Your task to perform on an android device: Do I have any events this weekend? Image 0: 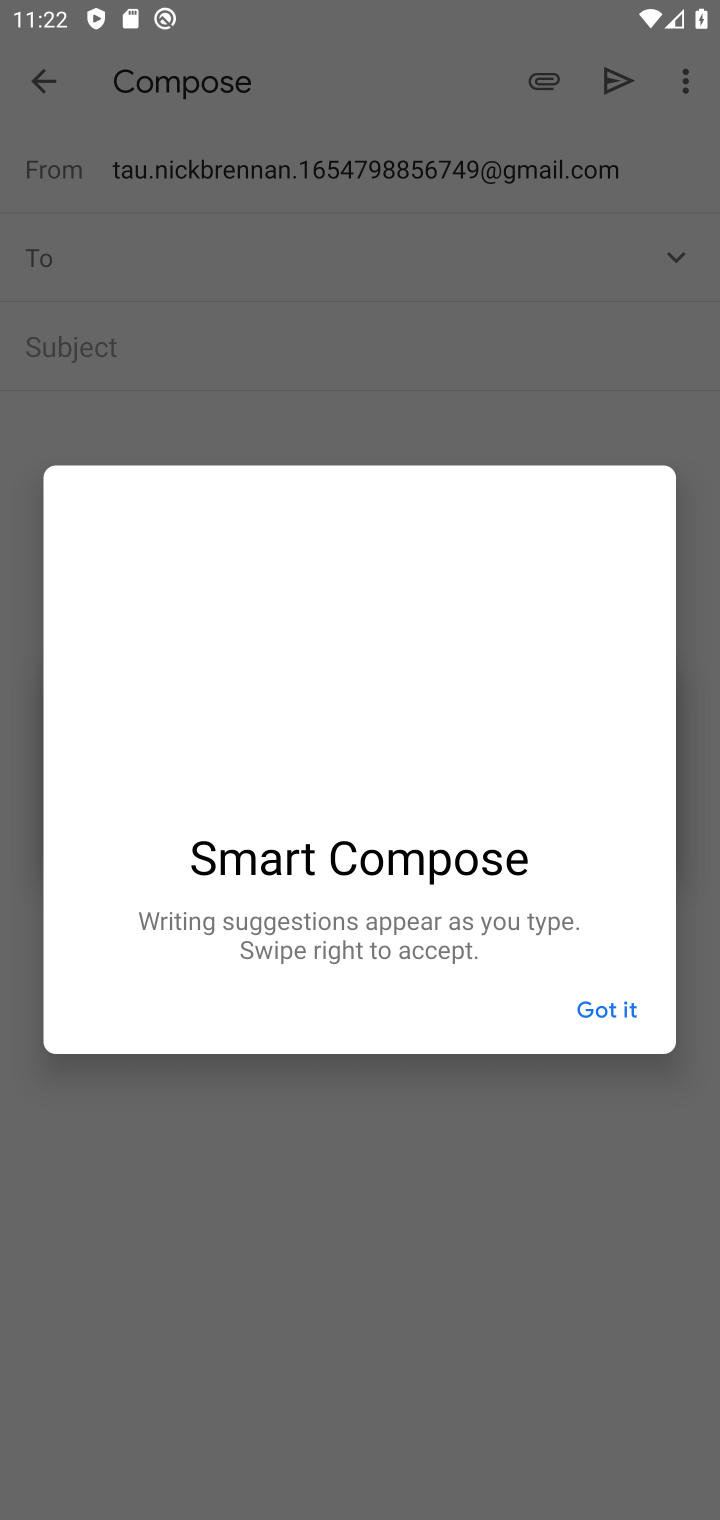
Step 0: press home button
Your task to perform on an android device: Do I have any events this weekend? Image 1: 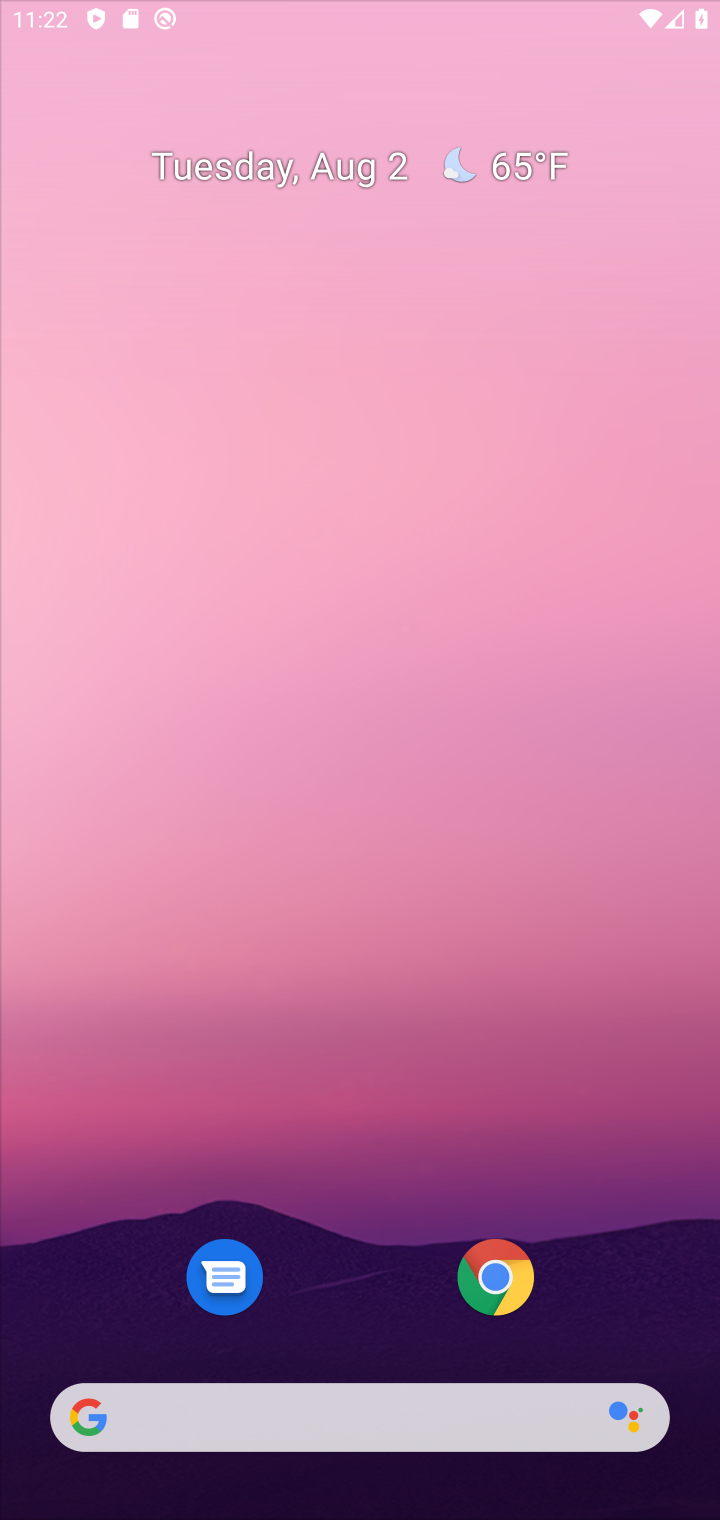
Step 1: press back button
Your task to perform on an android device: Do I have any events this weekend? Image 2: 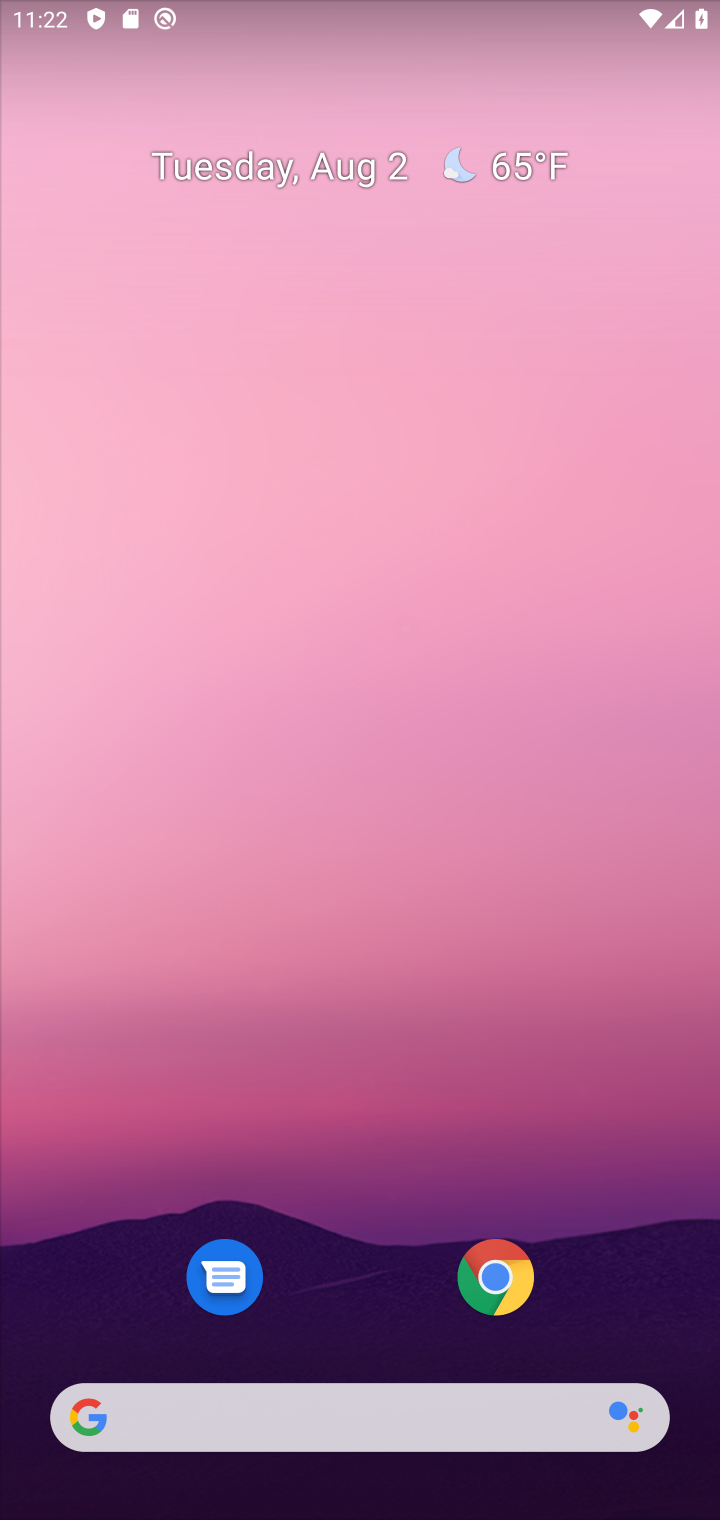
Step 2: drag from (544, 658) to (460, 304)
Your task to perform on an android device: Do I have any events this weekend? Image 3: 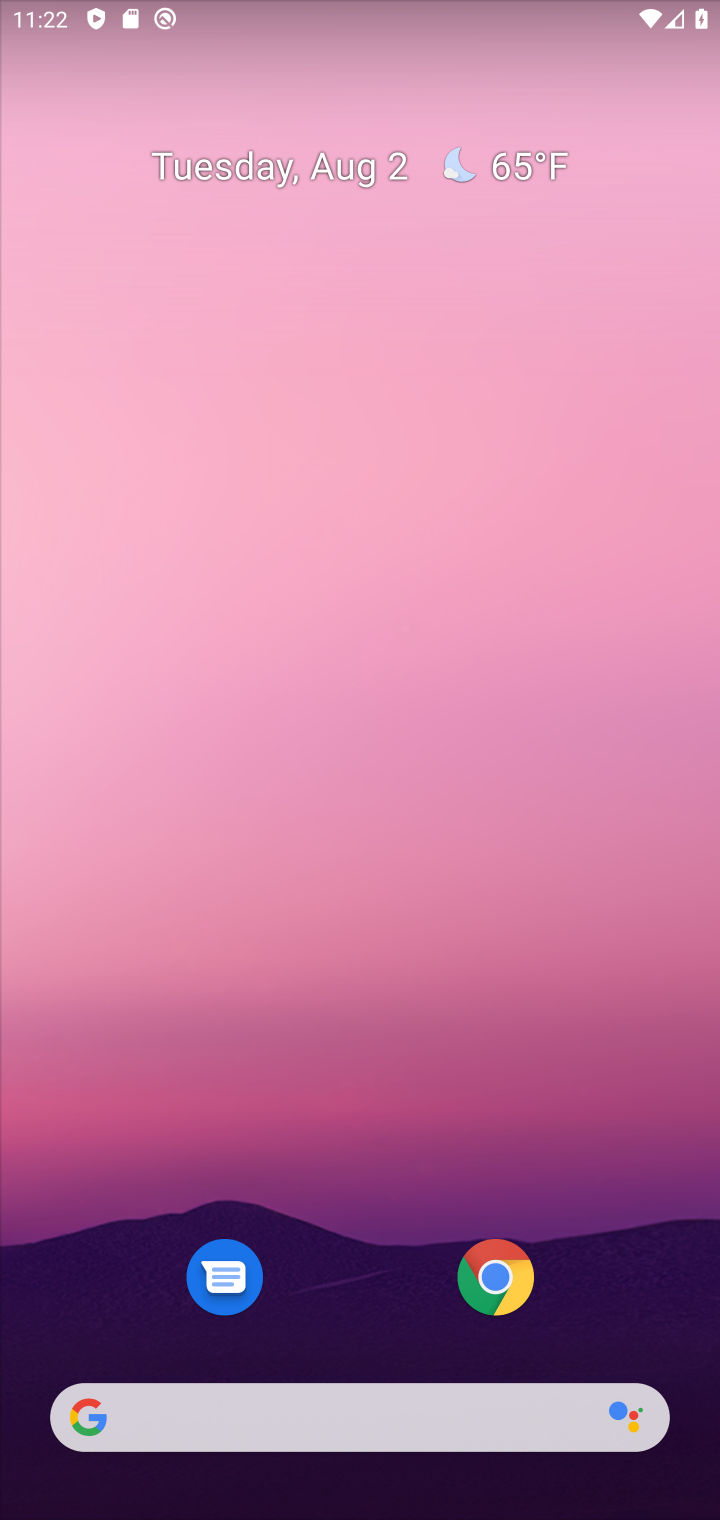
Step 3: drag from (583, 957) to (407, 246)
Your task to perform on an android device: Do I have any events this weekend? Image 4: 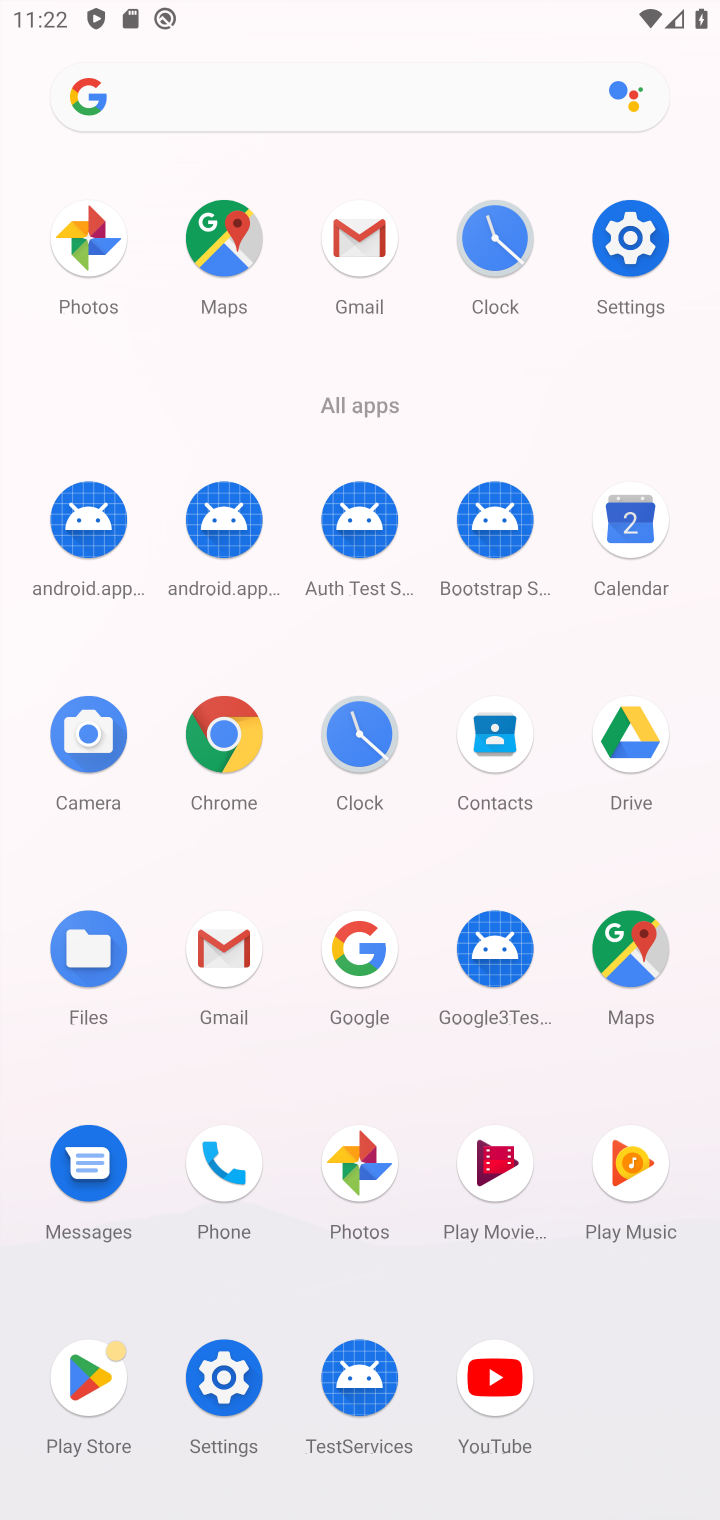
Step 4: click (634, 533)
Your task to perform on an android device: Do I have any events this weekend? Image 5: 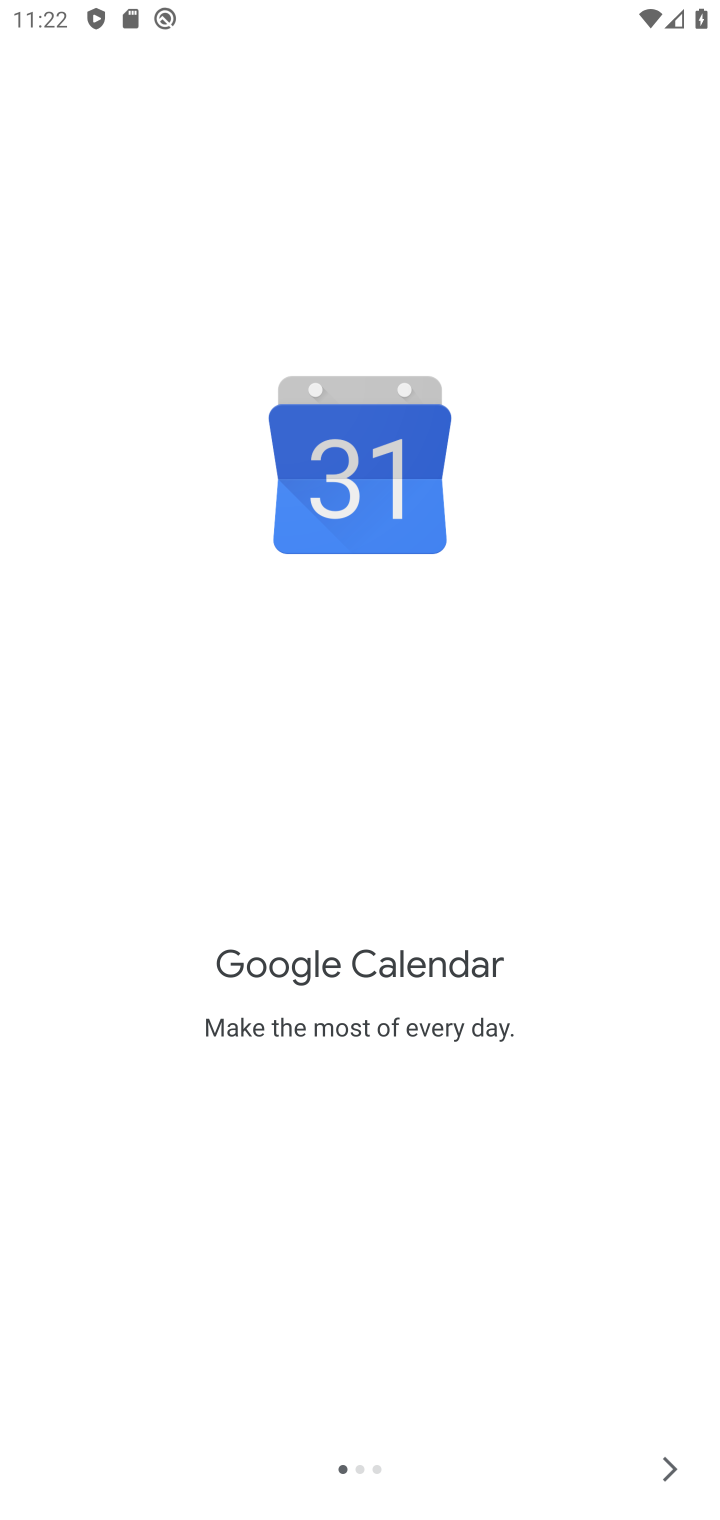
Step 5: click (689, 1494)
Your task to perform on an android device: Do I have any events this weekend? Image 6: 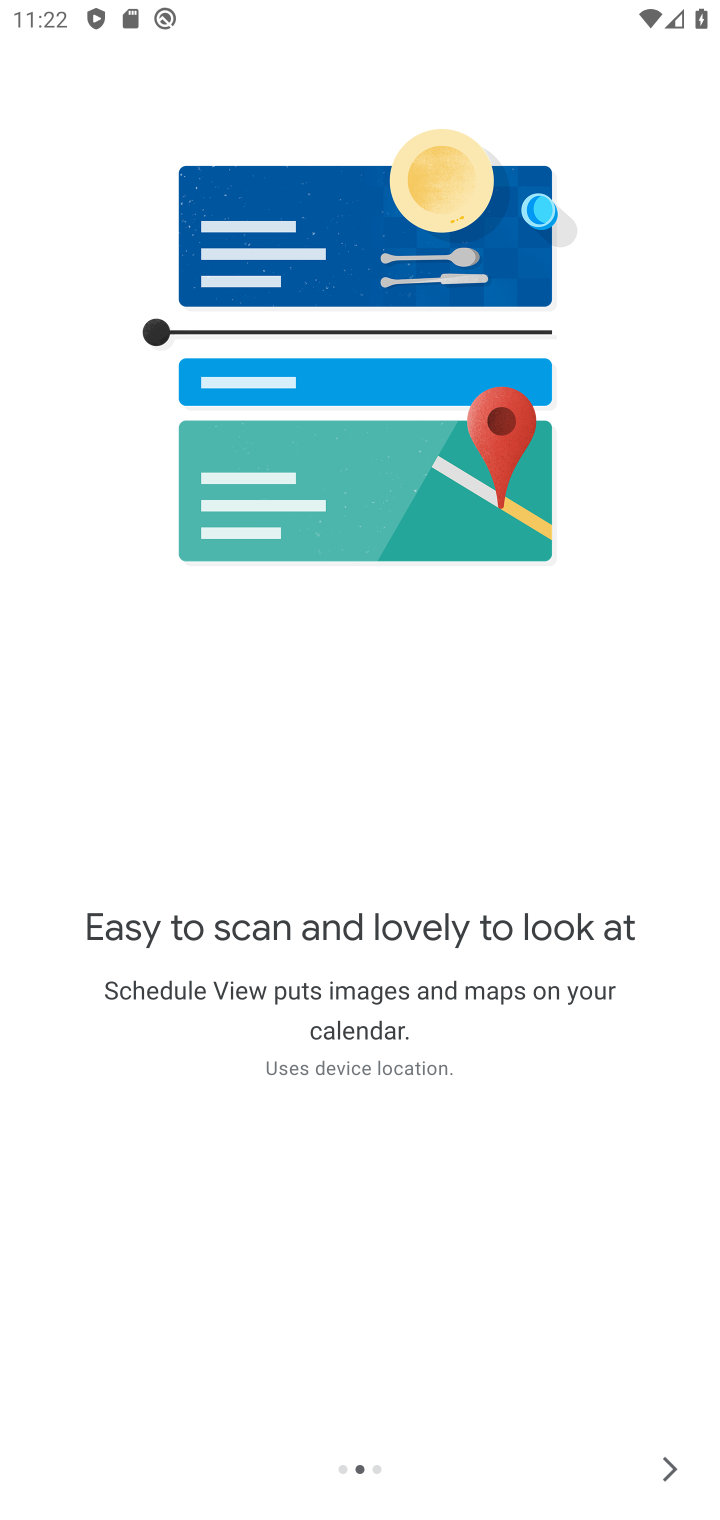
Step 6: click (689, 1494)
Your task to perform on an android device: Do I have any events this weekend? Image 7: 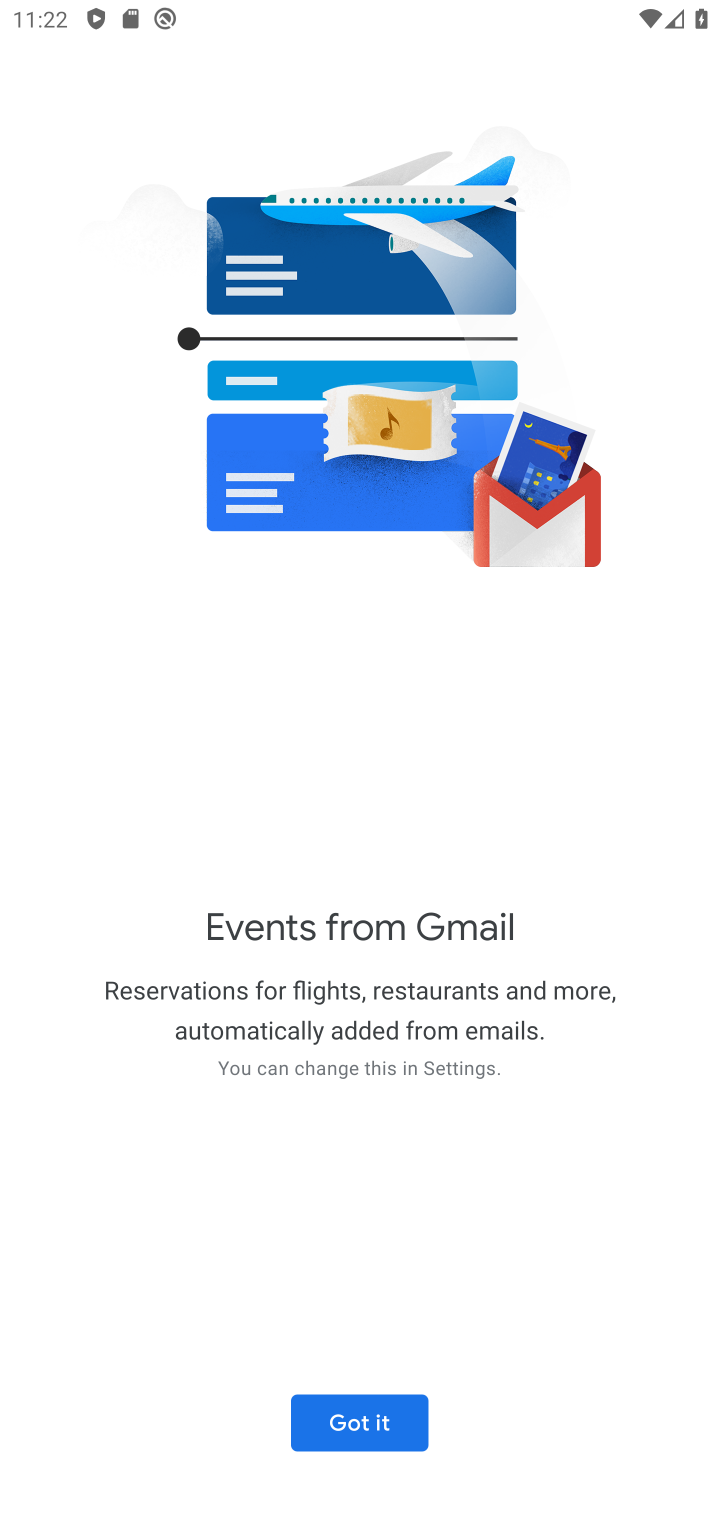
Step 7: click (665, 1479)
Your task to perform on an android device: Do I have any events this weekend? Image 8: 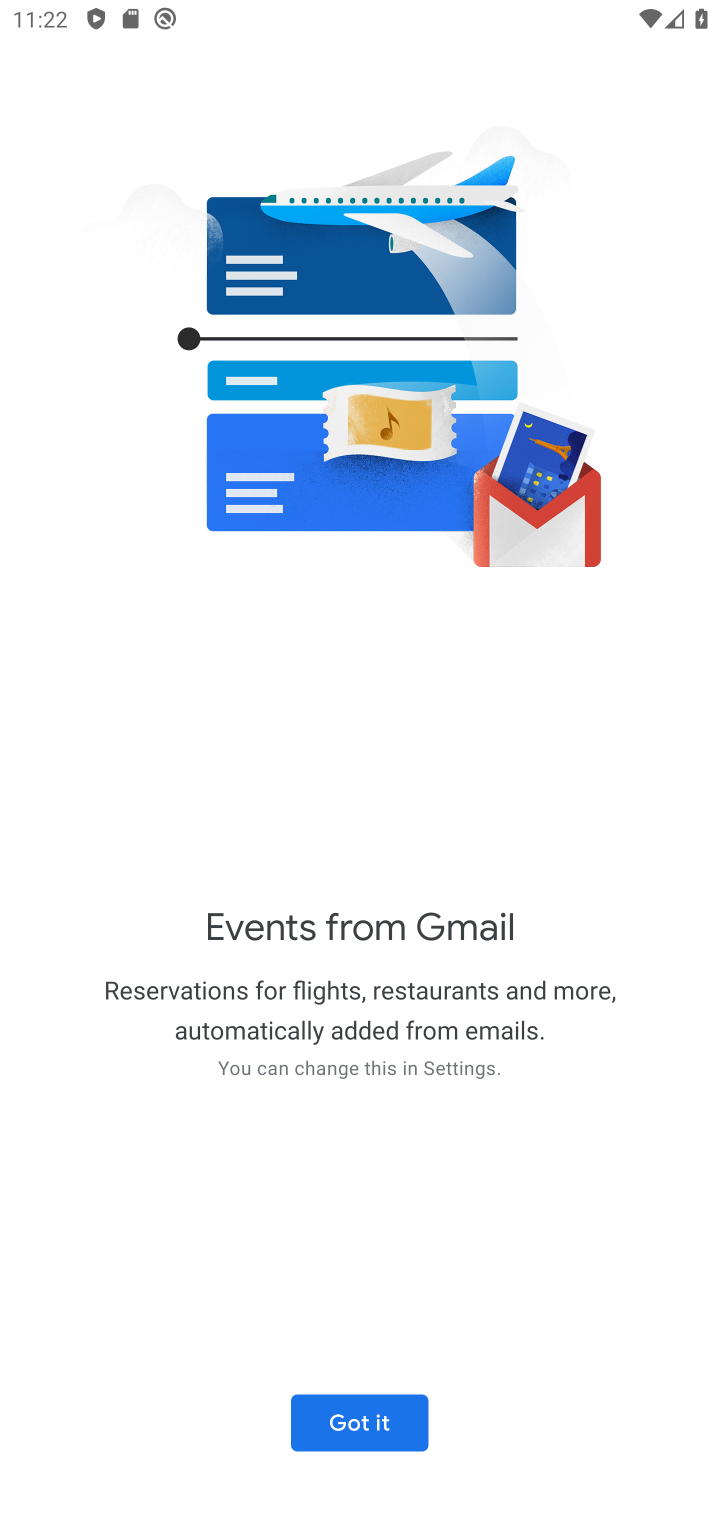
Step 8: click (314, 1430)
Your task to perform on an android device: Do I have any events this weekend? Image 9: 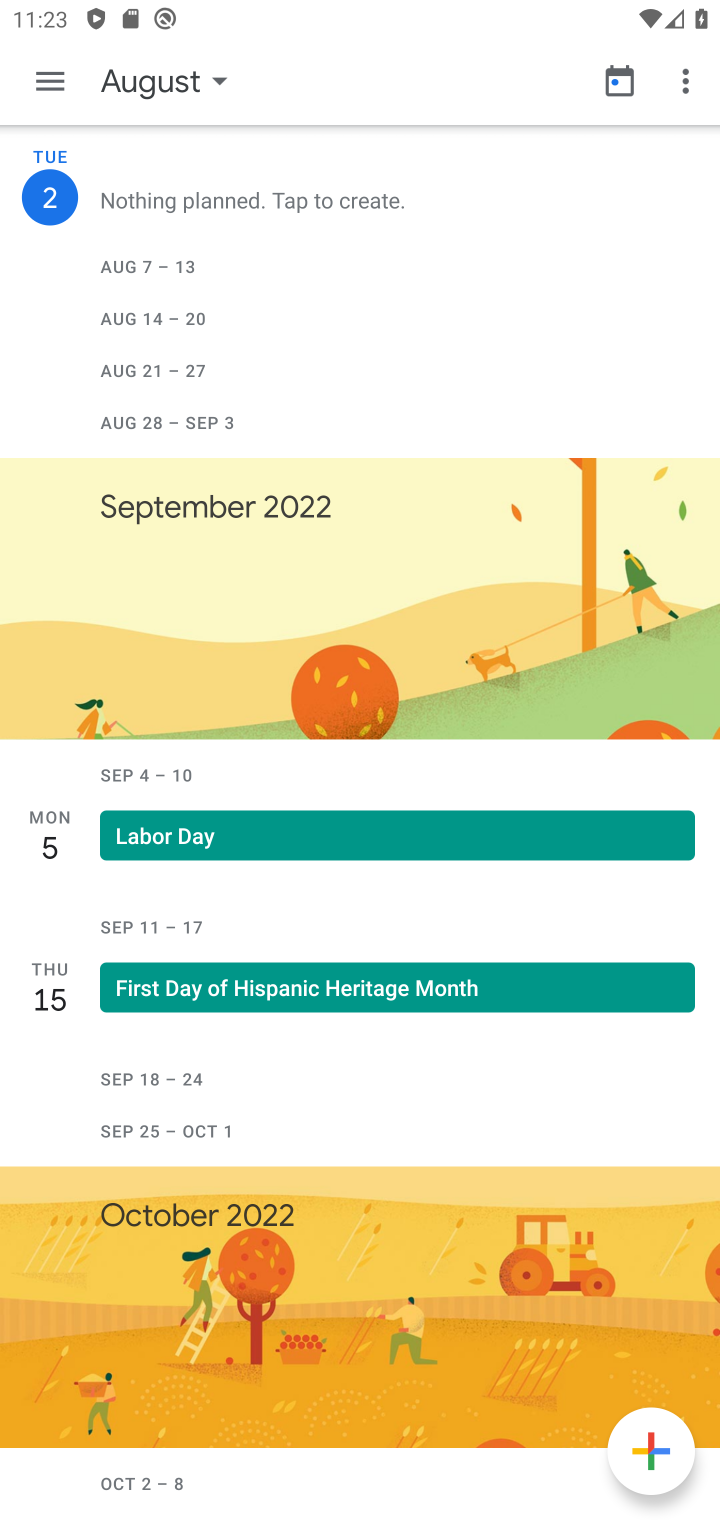
Step 9: click (52, 90)
Your task to perform on an android device: Do I have any events this weekend? Image 10: 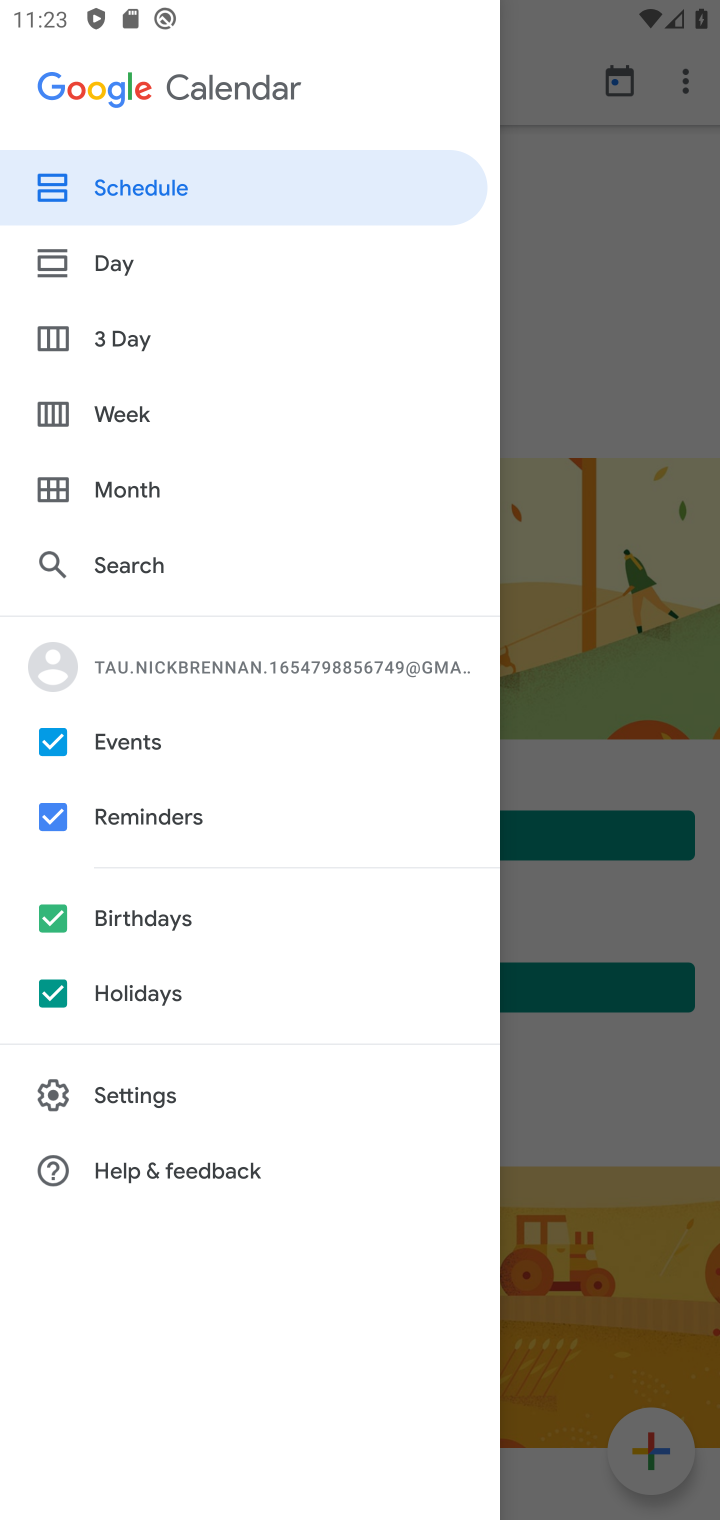
Step 10: click (60, 981)
Your task to perform on an android device: Do I have any events this weekend? Image 11: 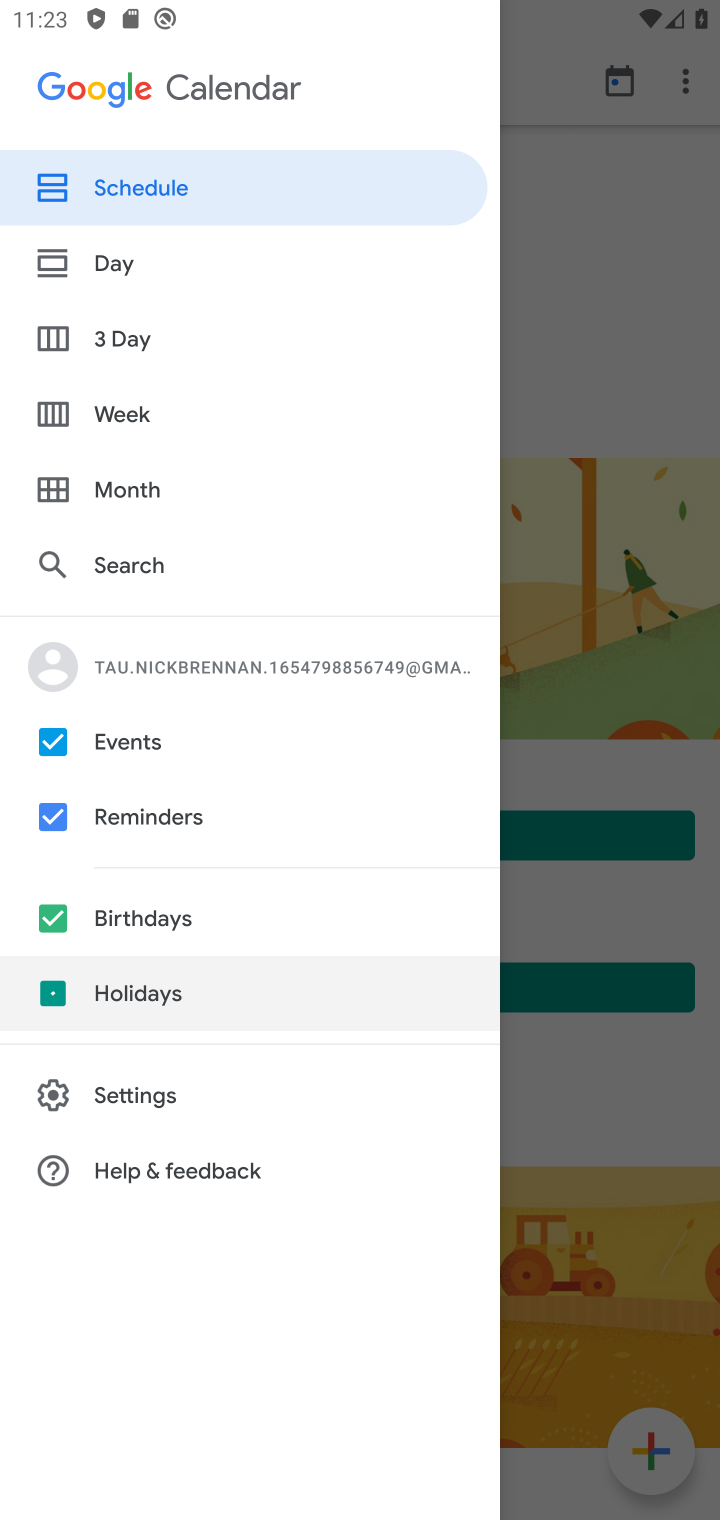
Step 11: click (41, 919)
Your task to perform on an android device: Do I have any events this weekend? Image 12: 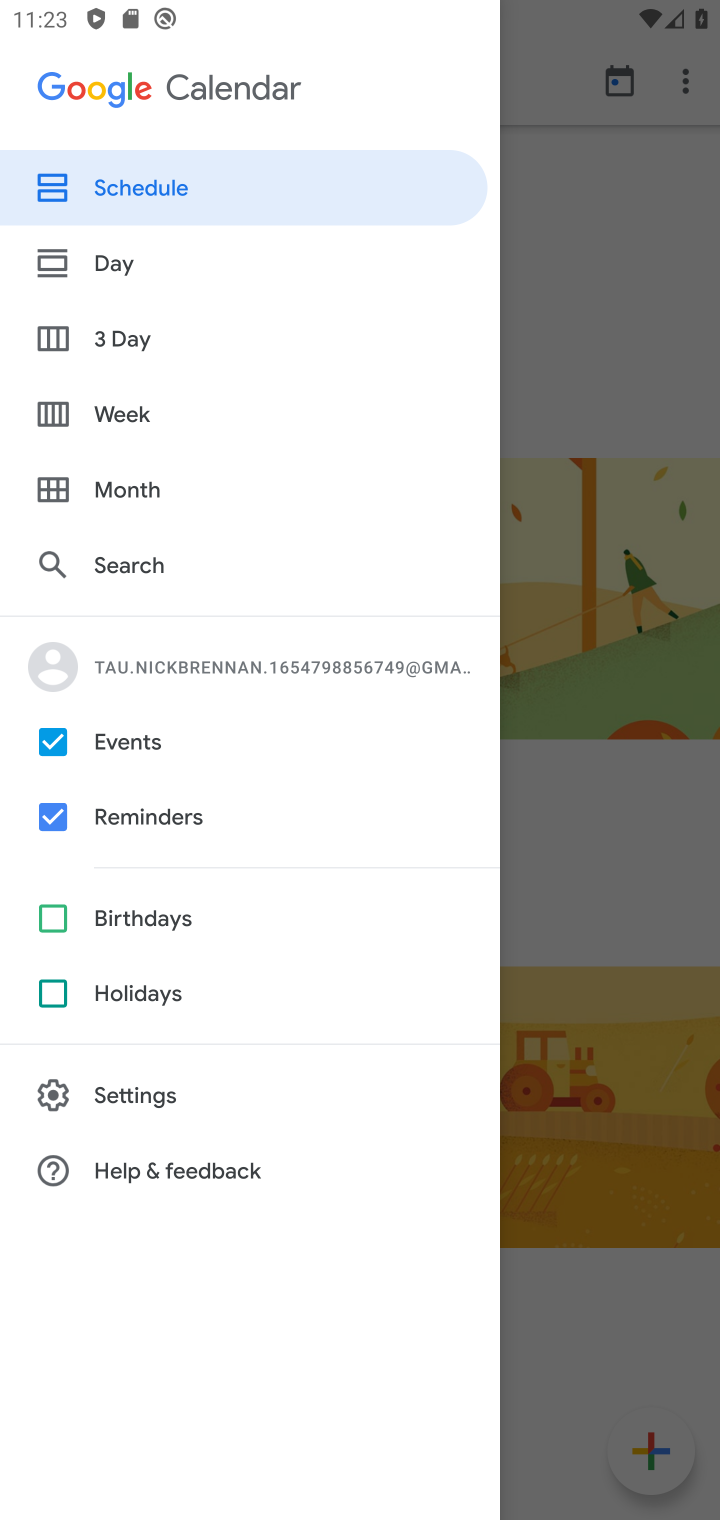
Step 12: click (52, 808)
Your task to perform on an android device: Do I have any events this weekend? Image 13: 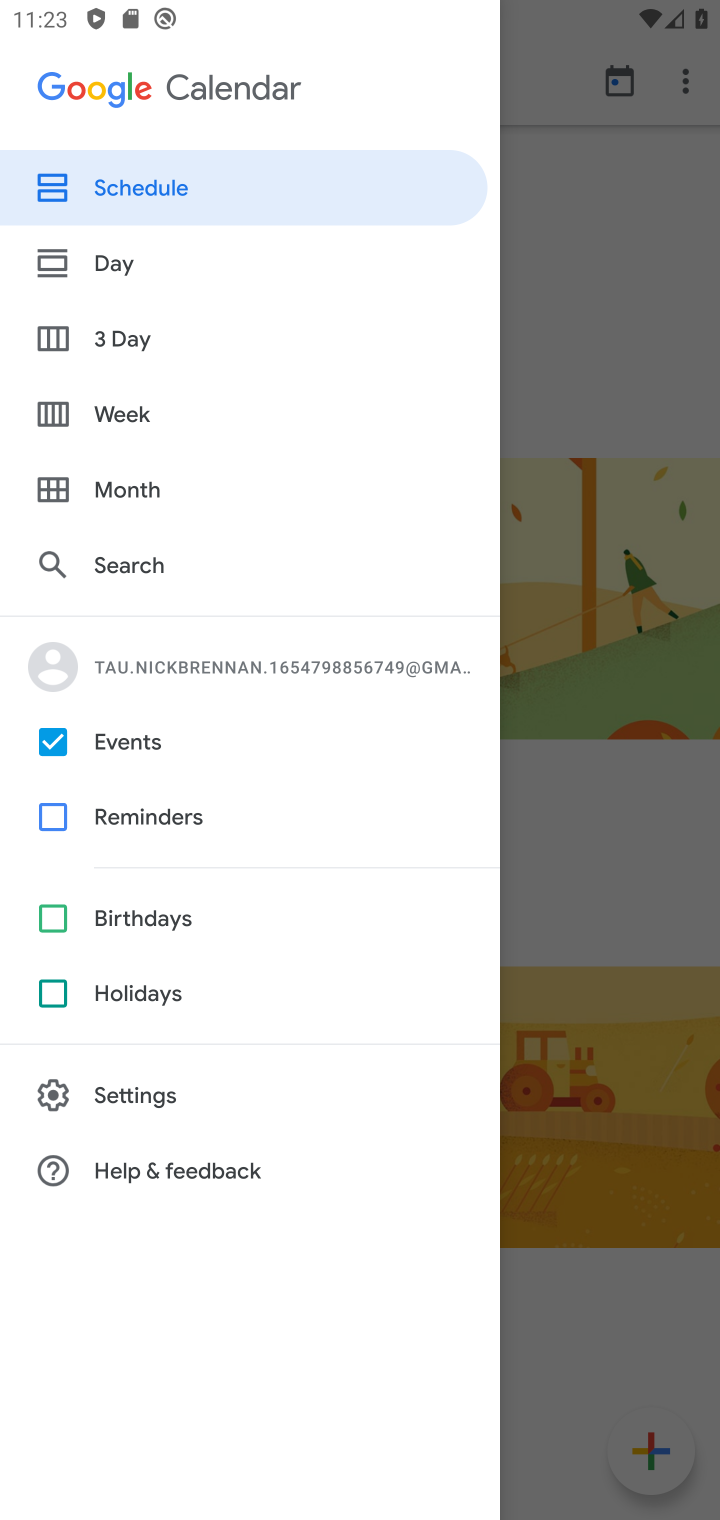
Step 13: click (122, 339)
Your task to perform on an android device: Do I have any events this weekend? Image 14: 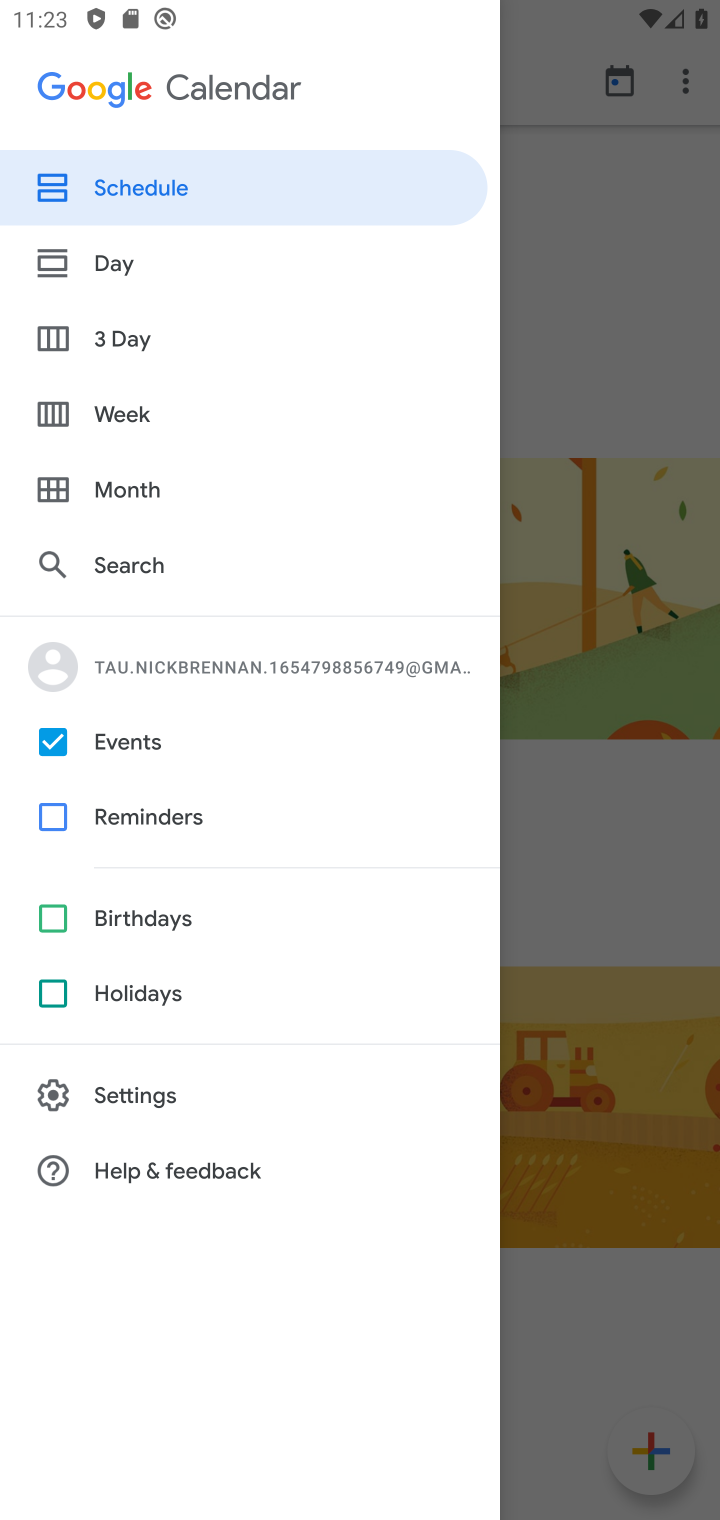
Step 14: click (121, 339)
Your task to perform on an android device: Do I have any events this weekend? Image 15: 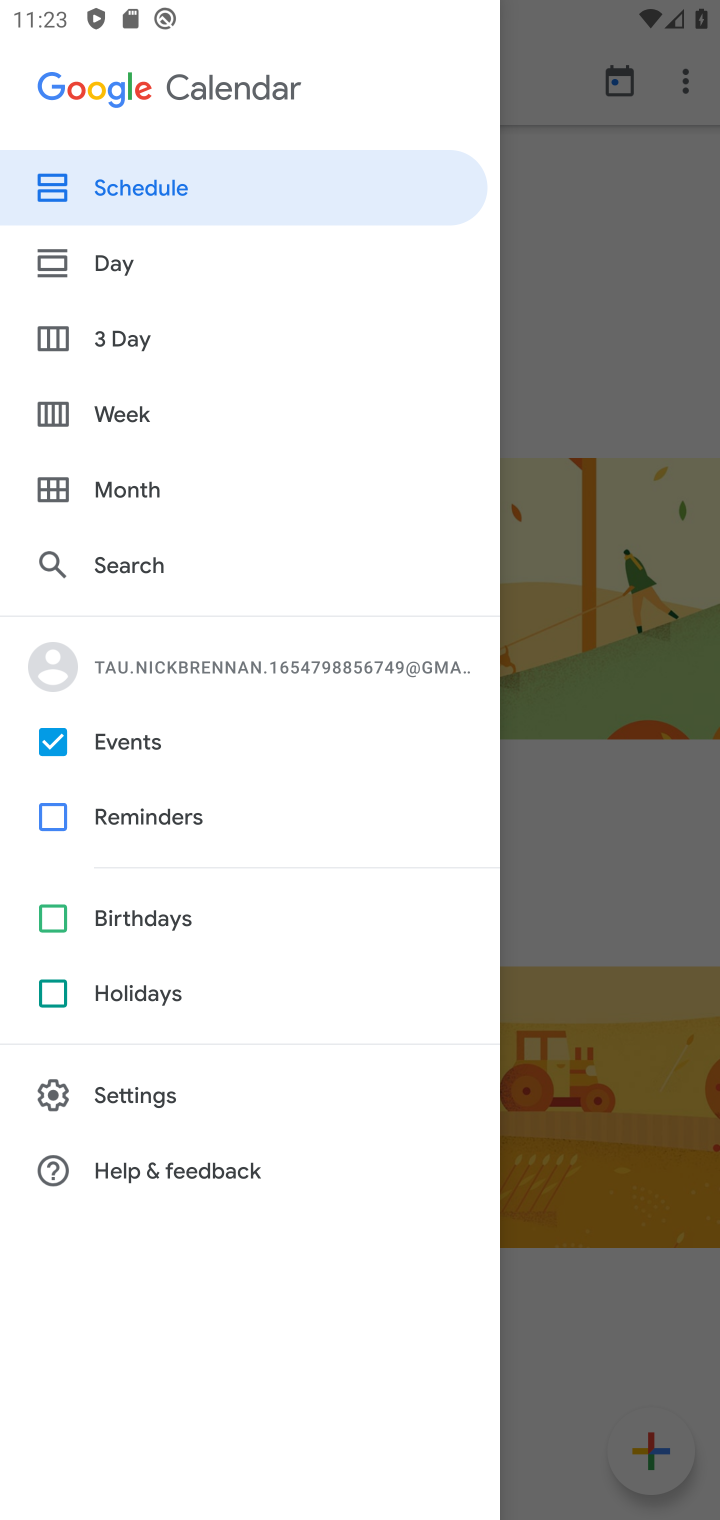
Step 15: click (256, 327)
Your task to perform on an android device: Do I have any events this weekend? Image 16: 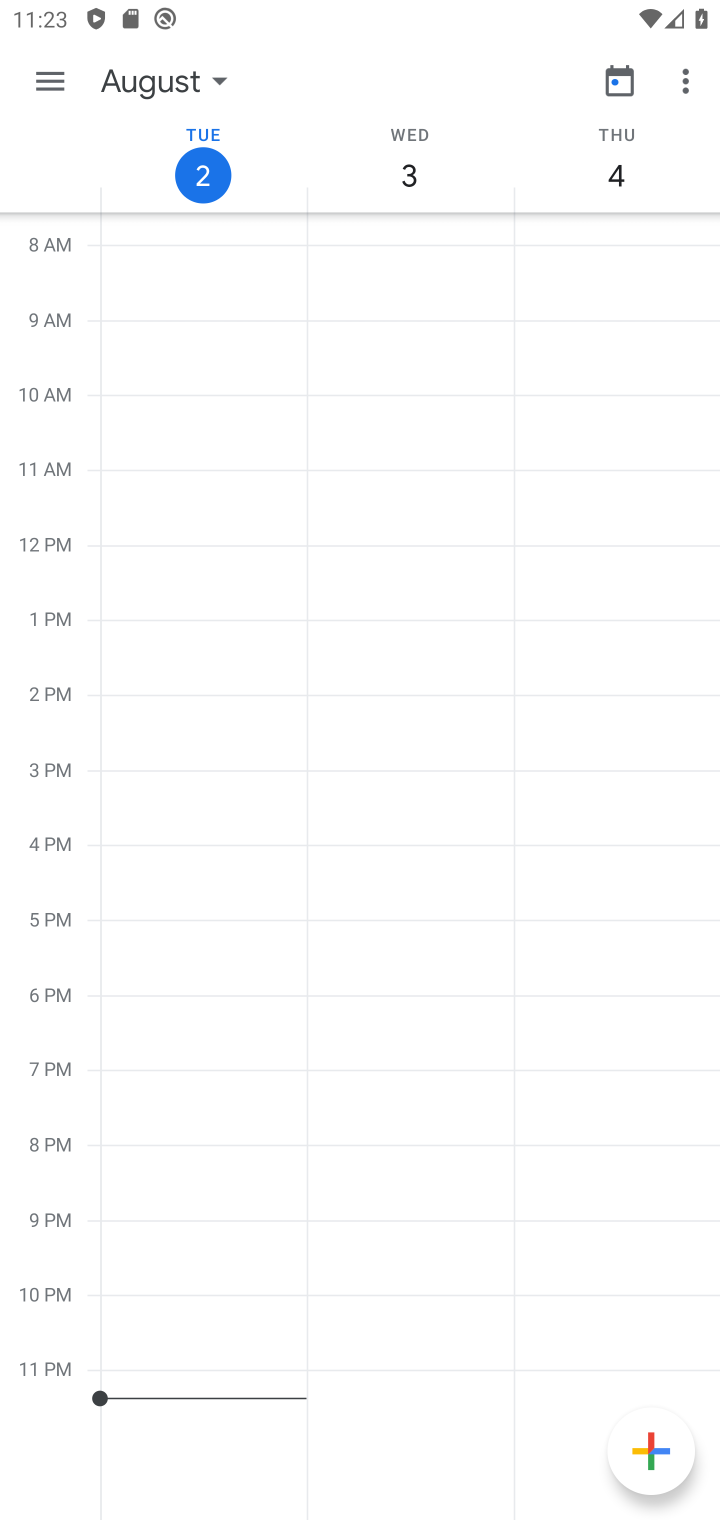
Step 16: task complete